Your task to perform on an android device: Search for duracell triple a on newegg.com, select the first entry, and add it to the cart. Image 0: 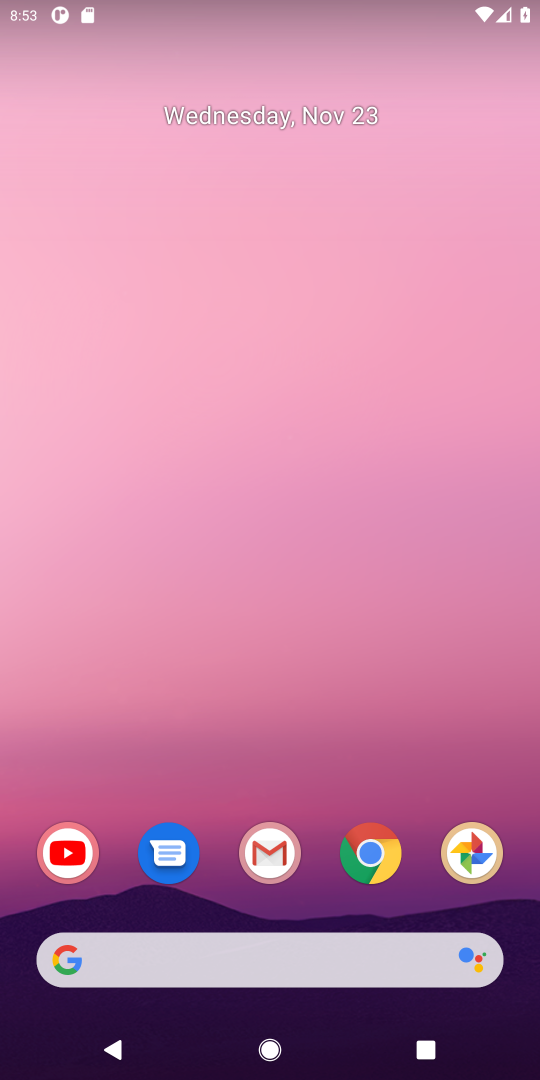
Step 0: click (371, 868)
Your task to perform on an android device: Search for duracell triple a on newegg.com, select the first entry, and add it to the cart. Image 1: 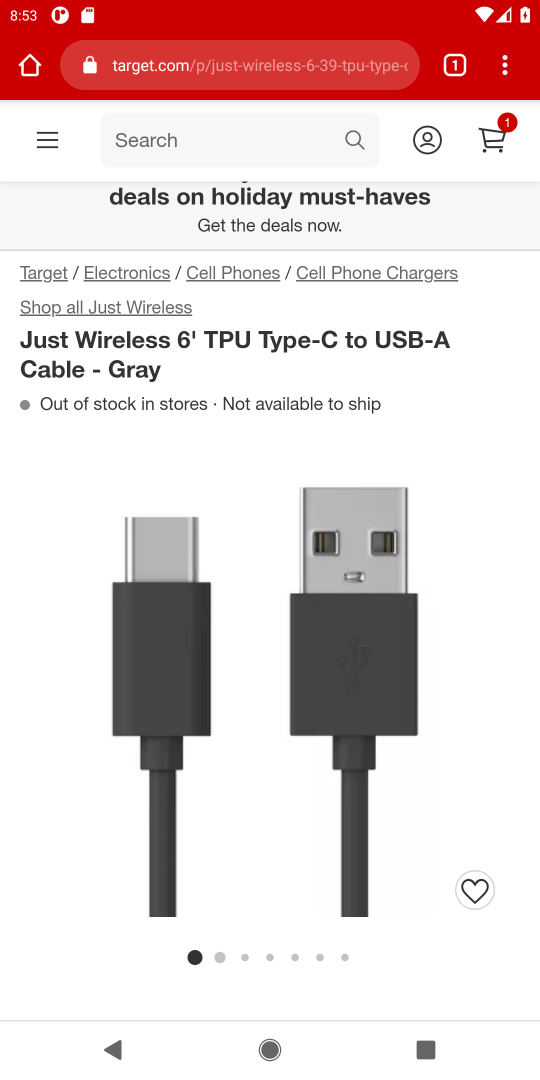
Step 1: click (209, 65)
Your task to perform on an android device: Search for duracell triple a on newegg.com, select the first entry, and add it to the cart. Image 2: 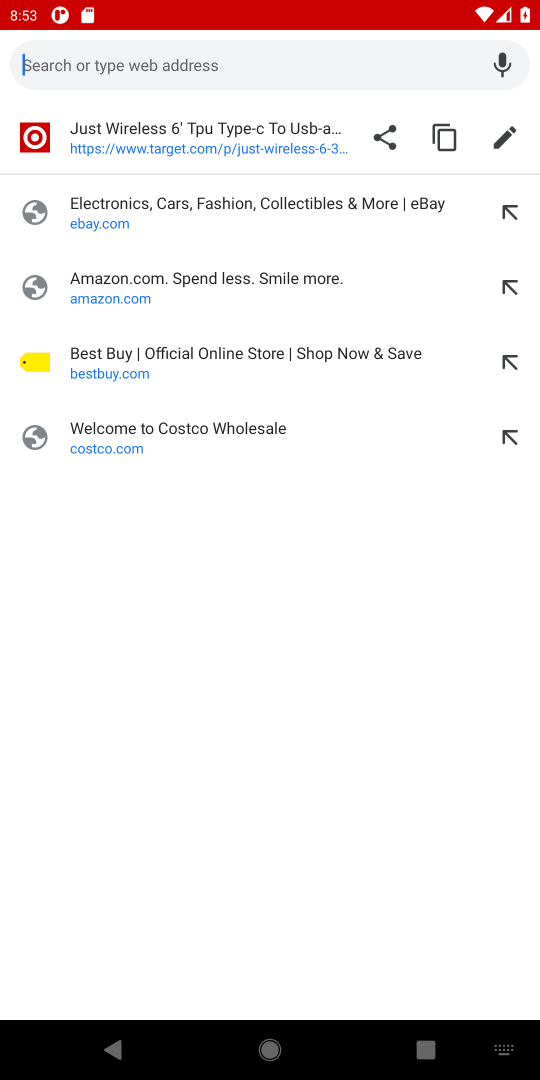
Step 2: type "newegg.com"
Your task to perform on an android device: Search for duracell triple a on newegg.com, select the first entry, and add it to the cart. Image 3: 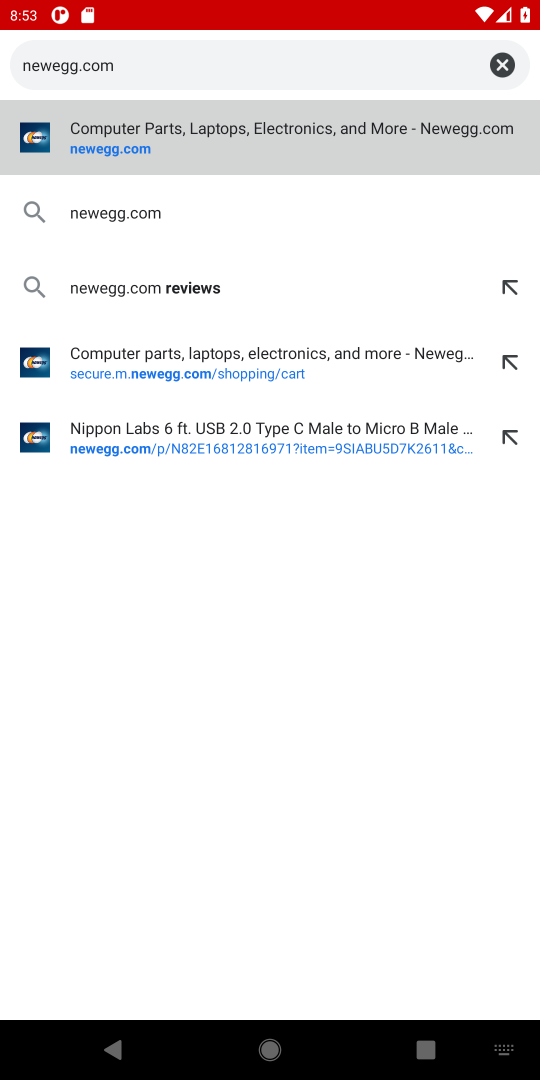
Step 3: click (129, 136)
Your task to perform on an android device: Search for duracell triple a on newegg.com, select the first entry, and add it to the cart. Image 4: 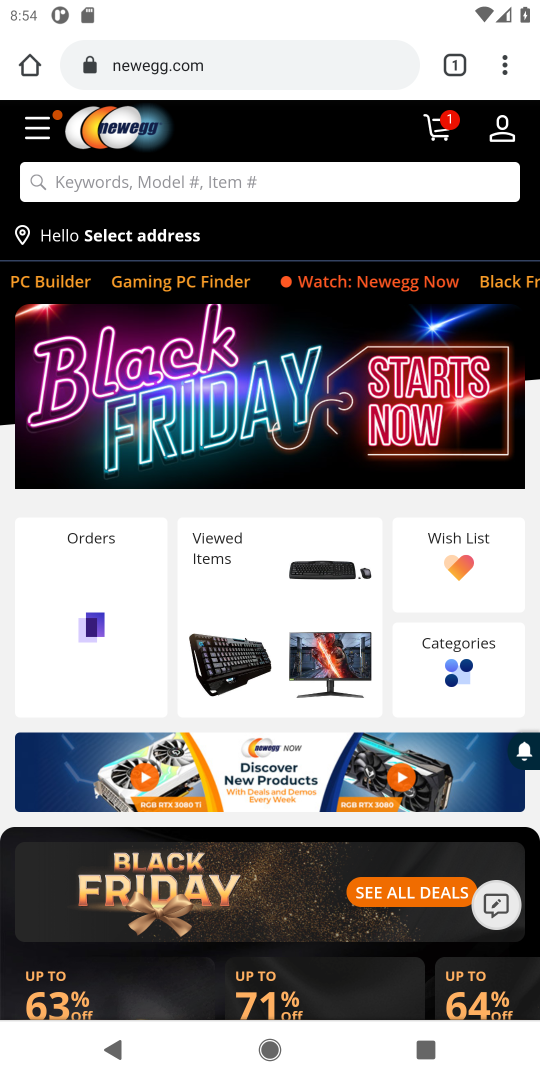
Step 4: click (102, 187)
Your task to perform on an android device: Search for duracell triple a on newegg.com, select the first entry, and add it to the cart. Image 5: 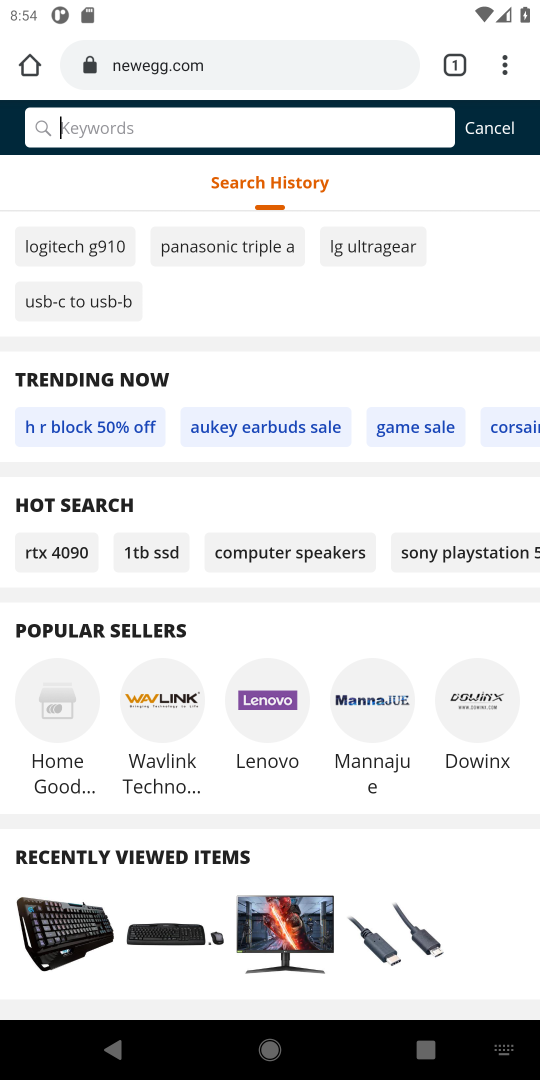
Step 5: type "duracell triple a"
Your task to perform on an android device: Search for duracell triple a on newegg.com, select the first entry, and add it to the cart. Image 6: 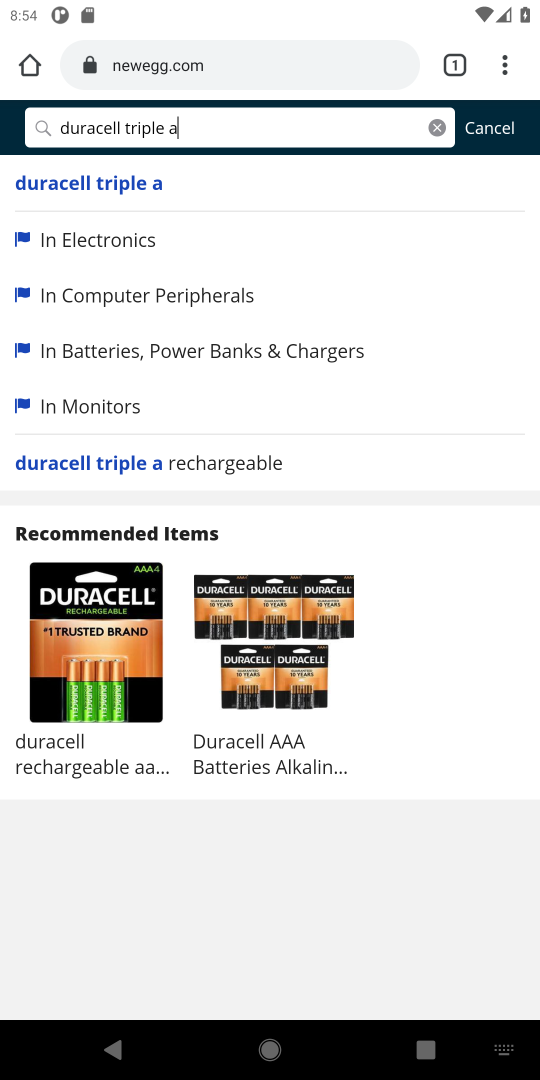
Step 6: click (73, 185)
Your task to perform on an android device: Search for duracell triple a on newegg.com, select the first entry, and add it to the cart. Image 7: 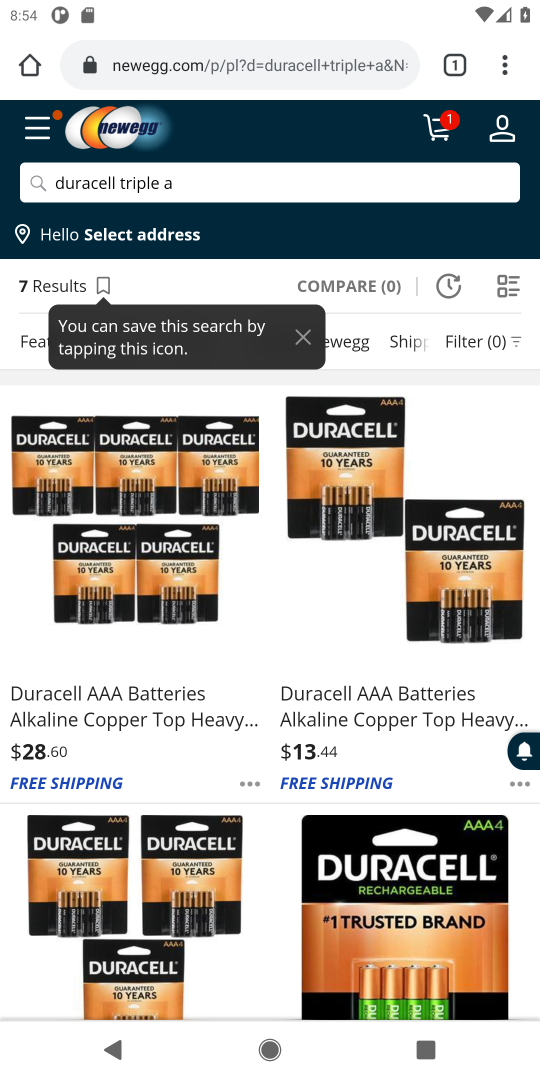
Step 7: click (123, 556)
Your task to perform on an android device: Search for duracell triple a on newegg.com, select the first entry, and add it to the cart. Image 8: 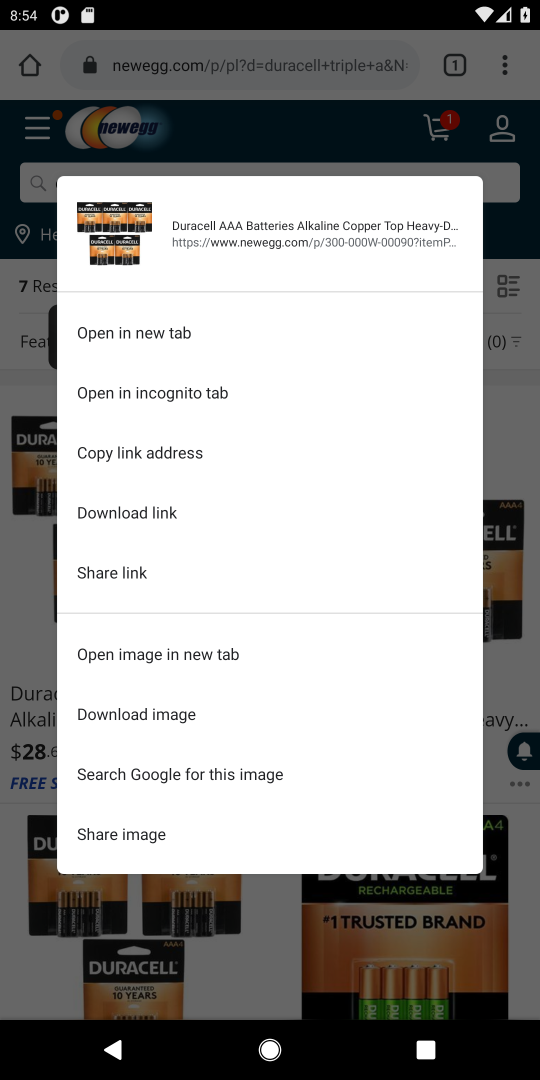
Step 8: click (25, 536)
Your task to perform on an android device: Search for duracell triple a on newegg.com, select the first entry, and add it to the cart. Image 9: 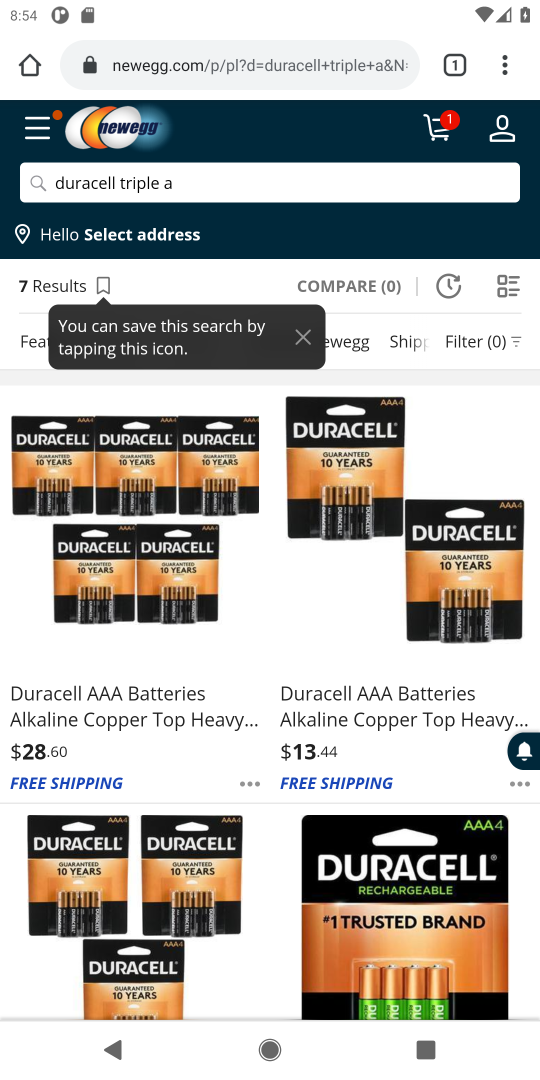
Step 9: click (70, 507)
Your task to perform on an android device: Search for duracell triple a on newegg.com, select the first entry, and add it to the cart. Image 10: 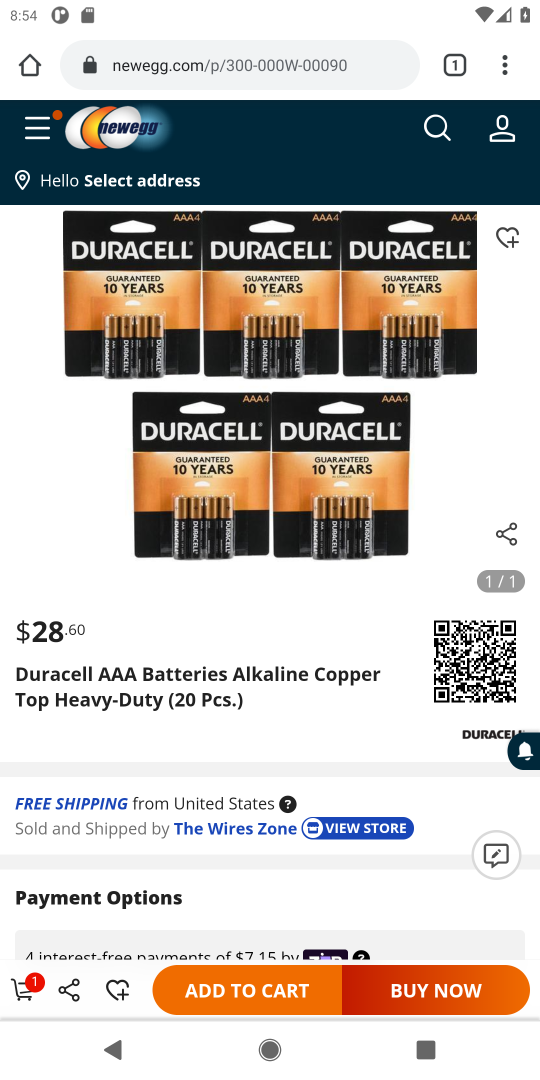
Step 10: click (232, 983)
Your task to perform on an android device: Search for duracell triple a on newegg.com, select the first entry, and add it to the cart. Image 11: 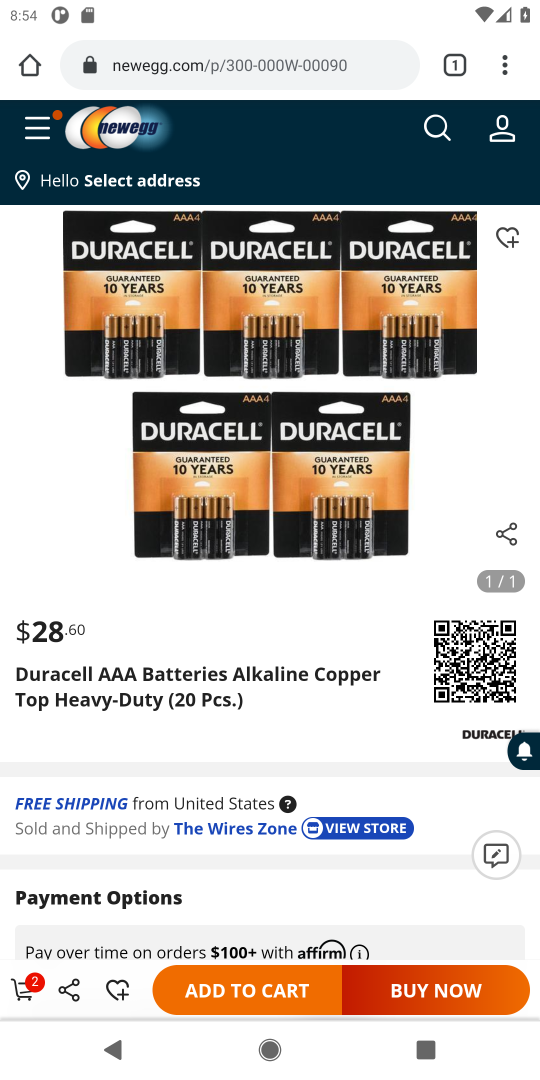
Step 11: task complete